Your task to perform on an android device: add a label to a message in the gmail app Image 0: 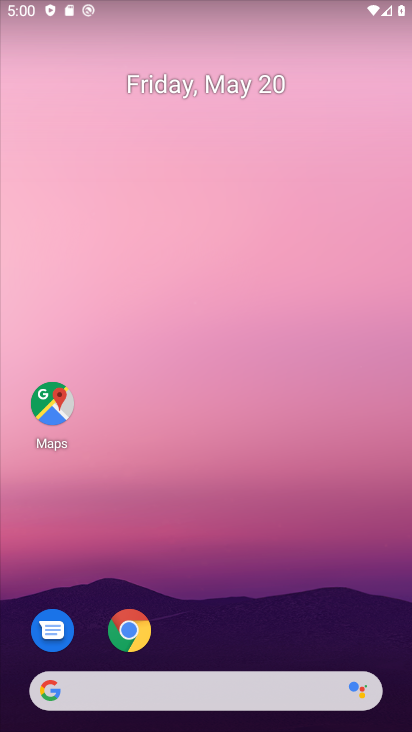
Step 0: drag from (304, 583) to (290, 36)
Your task to perform on an android device: add a label to a message in the gmail app Image 1: 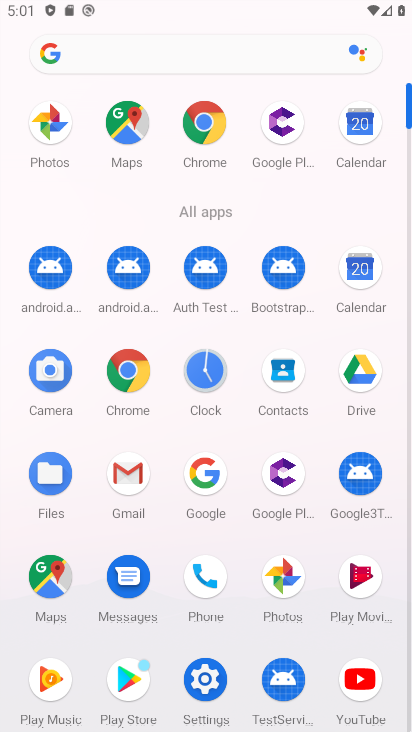
Step 1: click (123, 464)
Your task to perform on an android device: add a label to a message in the gmail app Image 2: 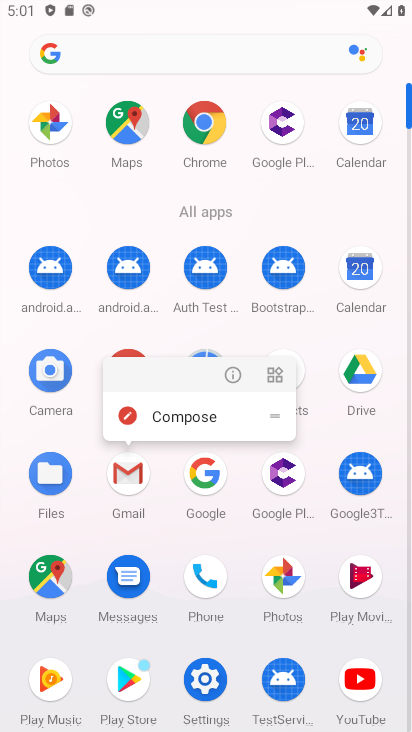
Step 2: click (126, 472)
Your task to perform on an android device: add a label to a message in the gmail app Image 3: 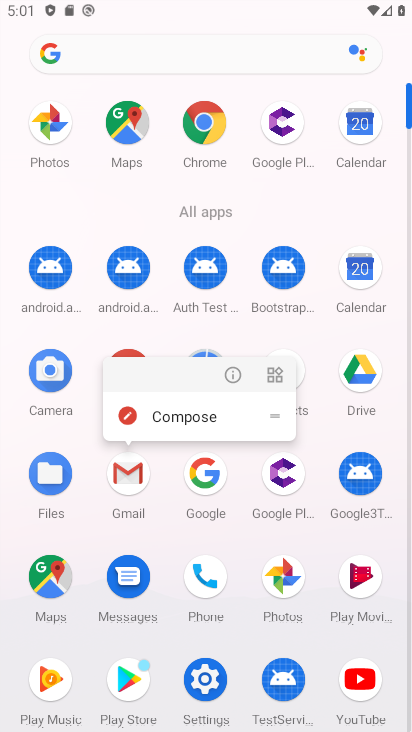
Step 3: click (126, 474)
Your task to perform on an android device: add a label to a message in the gmail app Image 4: 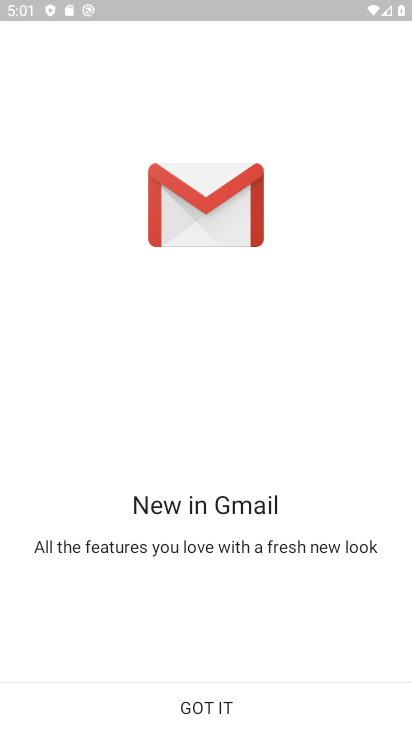
Step 4: click (225, 698)
Your task to perform on an android device: add a label to a message in the gmail app Image 5: 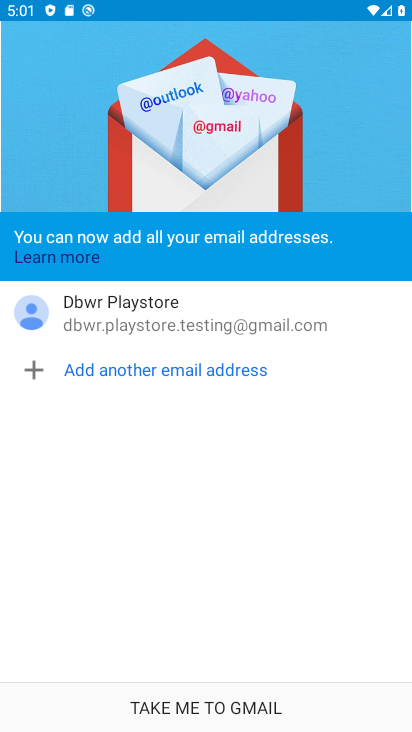
Step 5: click (225, 698)
Your task to perform on an android device: add a label to a message in the gmail app Image 6: 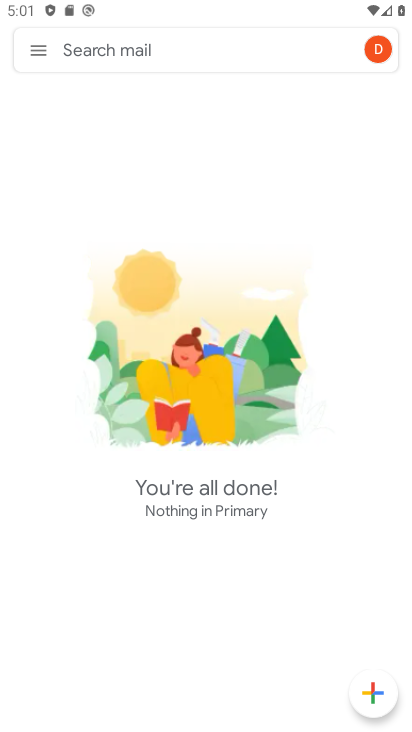
Step 6: click (40, 51)
Your task to perform on an android device: add a label to a message in the gmail app Image 7: 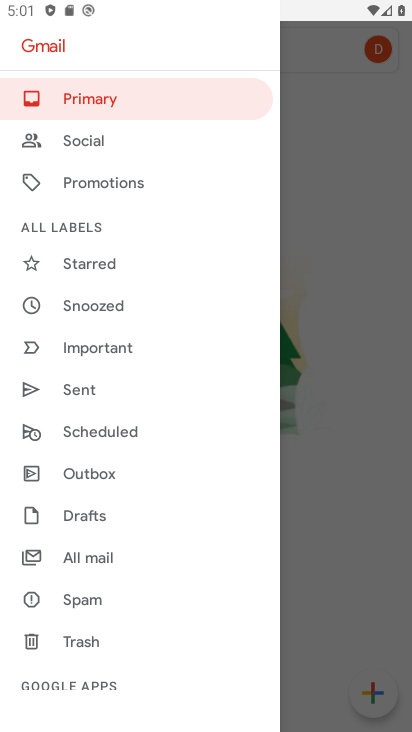
Step 7: click (85, 552)
Your task to perform on an android device: add a label to a message in the gmail app Image 8: 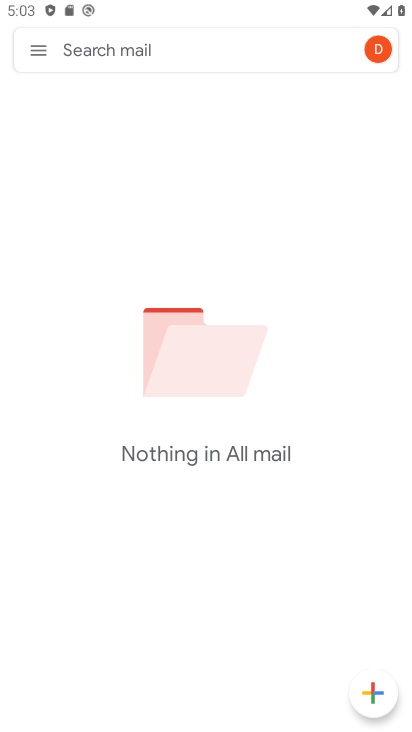
Step 8: task complete